Your task to perform on an android device: Search for sushi restaurants on Maps Image 0: 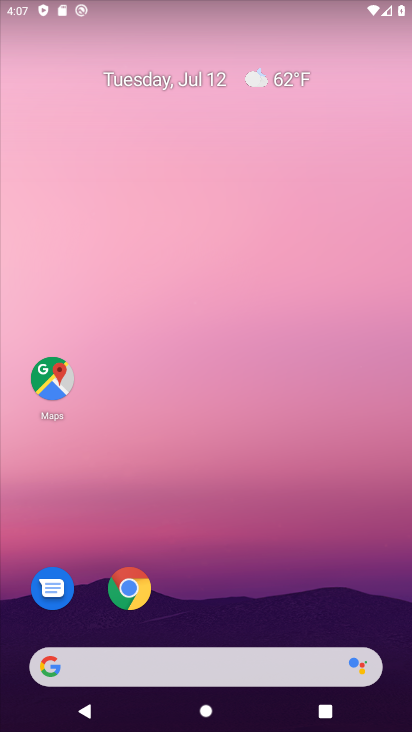
Step 0: drag from (222, 583) to (276, 163)
Your task to perform on an android device: Search for sushi restaurants on Maps Image 1: 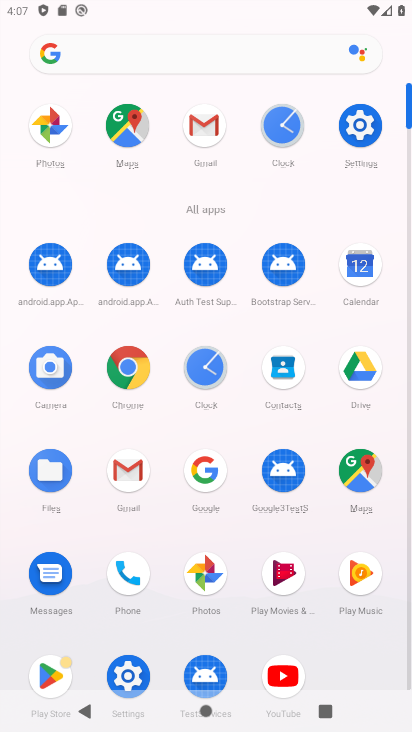
Step 1: click (347, 466)
Your task to perform on an android device: Search for sushi restaurants on Maps Image 2: 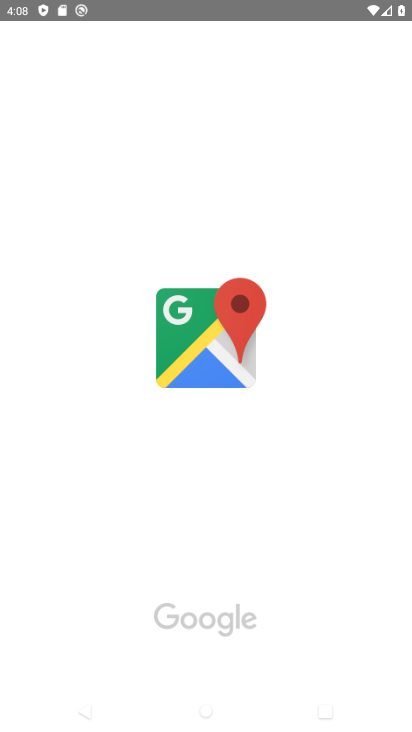
Step 2: task complete